Your task to perform on an android device: move a message to another label in the gmail app Image 0: 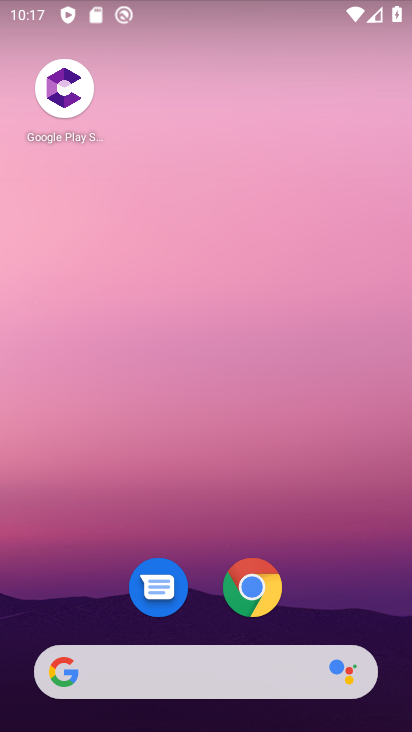
Step 0: drag from (336, 576) to (385, 124)
Your task to perform on an android device: move a message to another label in the gmail app Image 1: 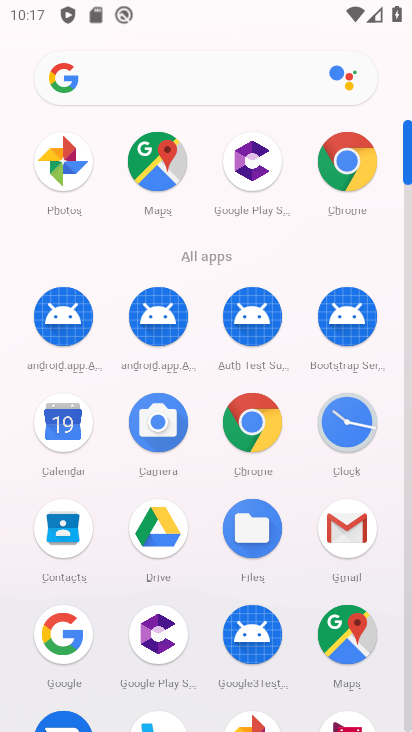
Step 1: click (346, 536)
Your task to perform on an android device: move a message to another label in the gmail app Image 2: 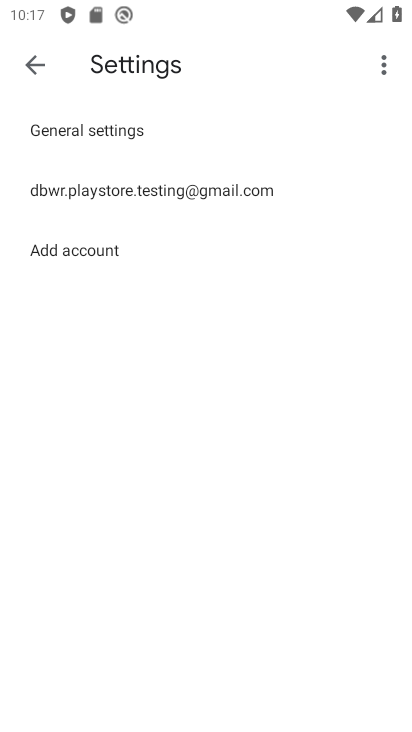
Step 2: click (147, 188)
Your task to perform on an android device: move a message to another label in the gmail app Image 3: 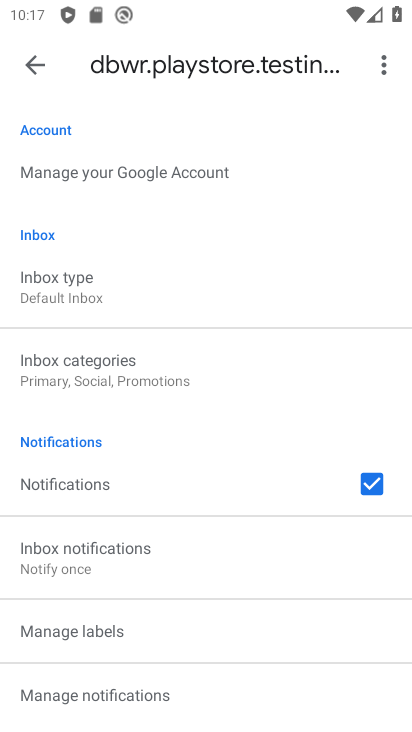
Step 3: drag from (187, 639) to (219, 274)
Your task to perform on an android device: move a message to another label in the gmail app Image 4: 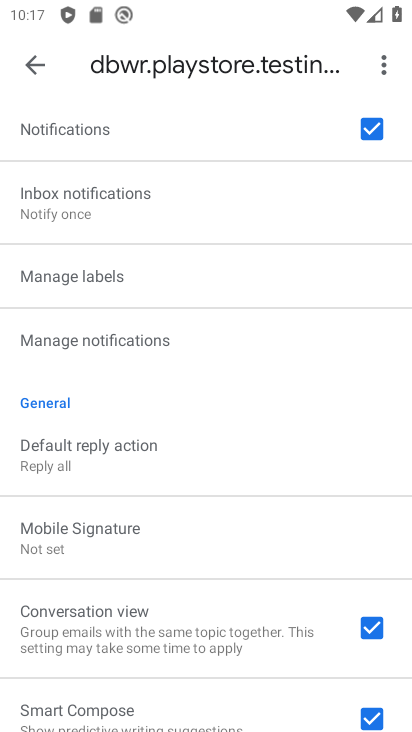
Step 4: drag from (177, 557) to (184, 252)
Your task to perform on an android device: move a message to another label in the gmail app Image 5: 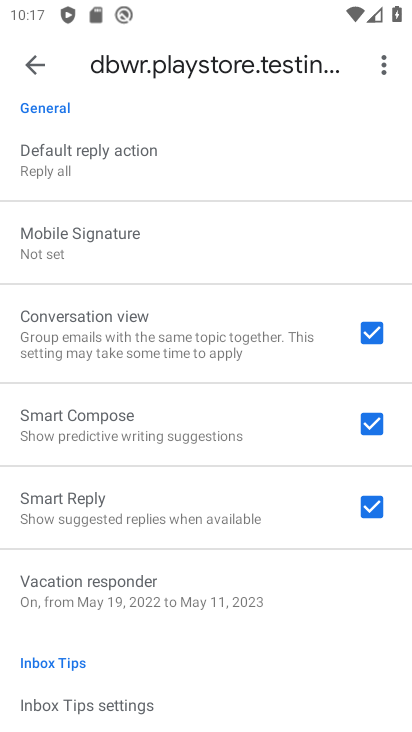
Step 5: drag from (218, 607) to (214, 272)
Your task to perform on an android device: move a message to another label in the gmail app Image 6: 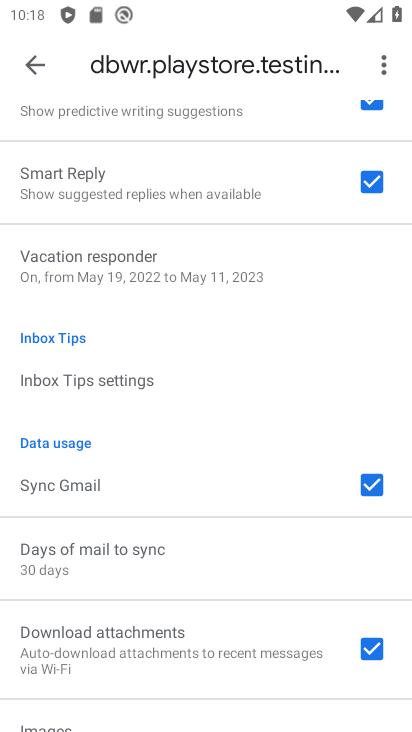
Step 6: click (54, 55)
Your task to perform on an android device: move a message to another label in the gmail app Image 7: 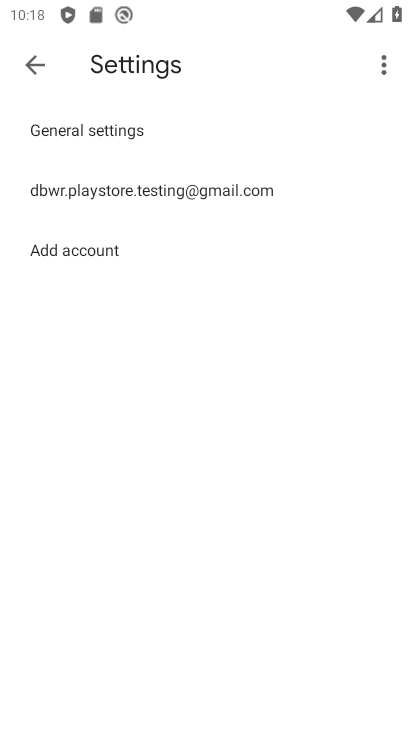
Step 7: click (53, 55)
Your task to perform on an android device: move a message to another label in the gmail app Image 8: 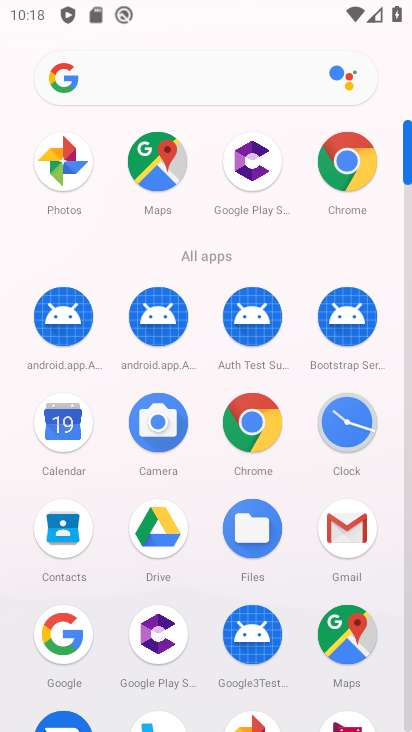
Step 8: click (348, 526)
Your task to perform on an android device: move a message to another label in the gmail app Image 9: 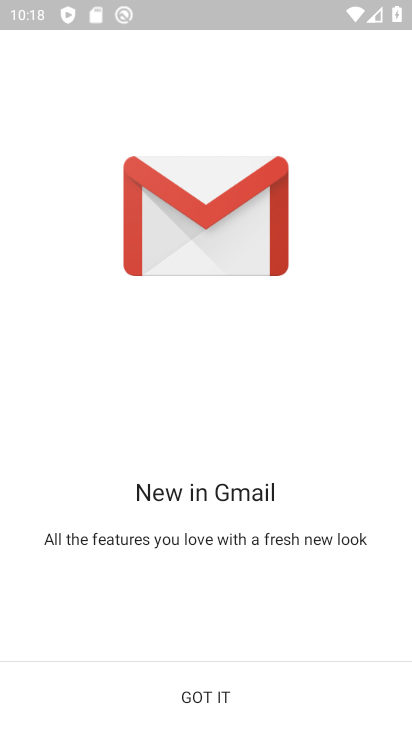
Step 9: click (194, 693)
Your task to perform on an android device: move a message to another label in the gmail app Image 10: 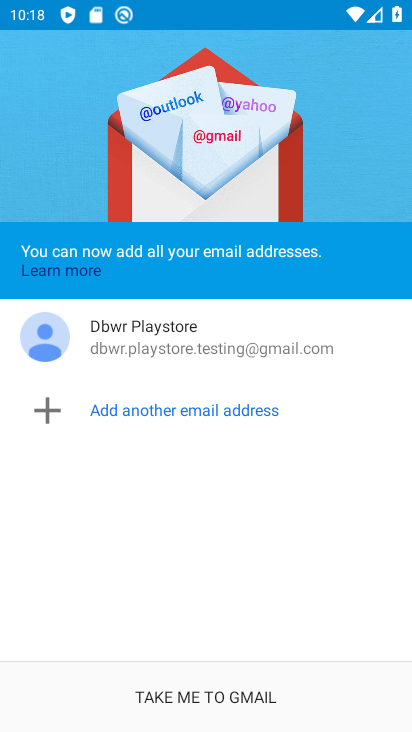
Step 10: click (200, 707)
Your task to perform on an android device: move a message to another label in the gmail app Image 11: 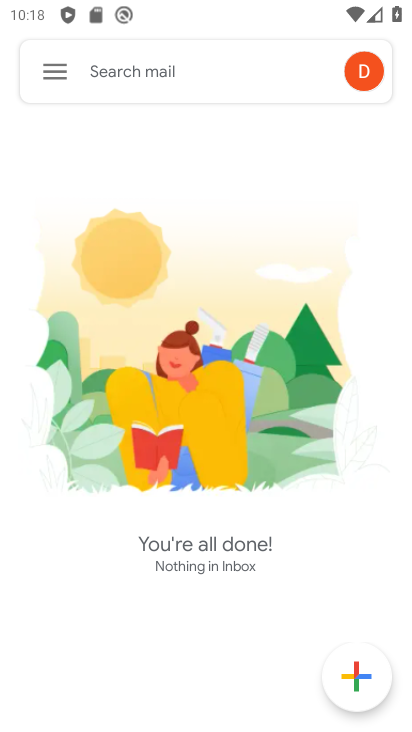
Step 11: click (56, 71)
Your task to perform on an android device: move a message to another label in the gmail app Image 12: 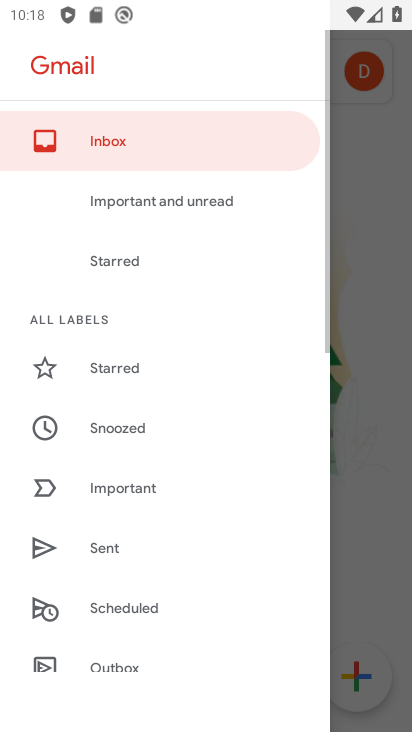
Step 12: drag from (117, 560) to (135, 292)
Your task to perform on an android device: move a message to another label in the gmail app Image 13: 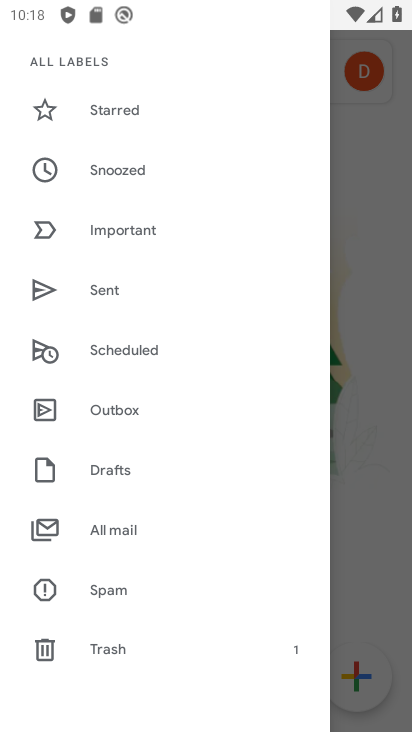
Step 13: click (146, 519)
Your task to perform on an android device: move a message to another label in the gmail app Image 14: 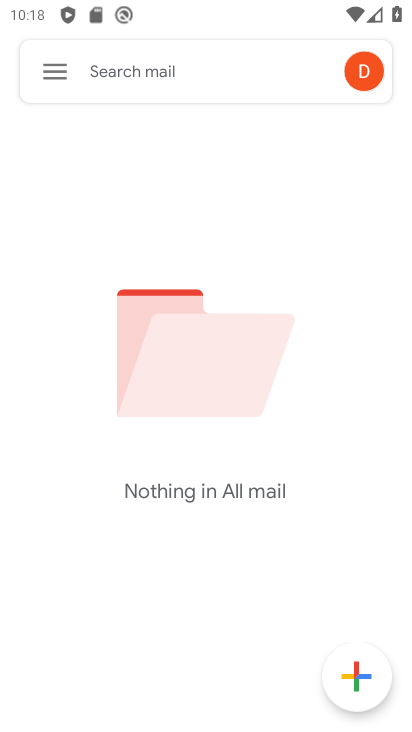
Step 14: task complete